Your task to perform on an android device: Set the phone to "Do not disturb". Image 0: 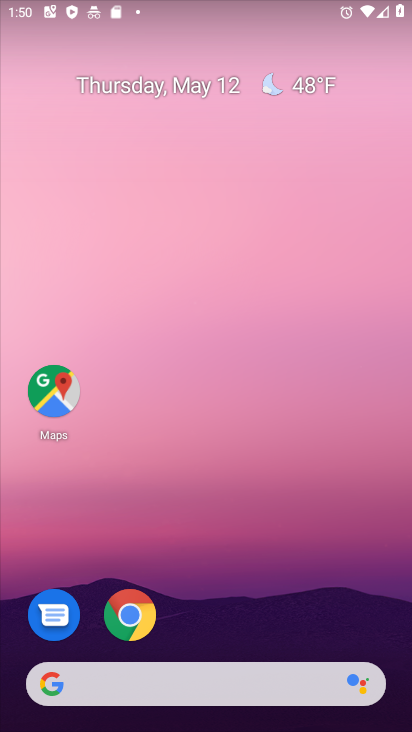
Step 0: drag from (239, 669) to (361, 7)
Your task to perform on an android device: Set the phone to "Do not disturb". Image 1: 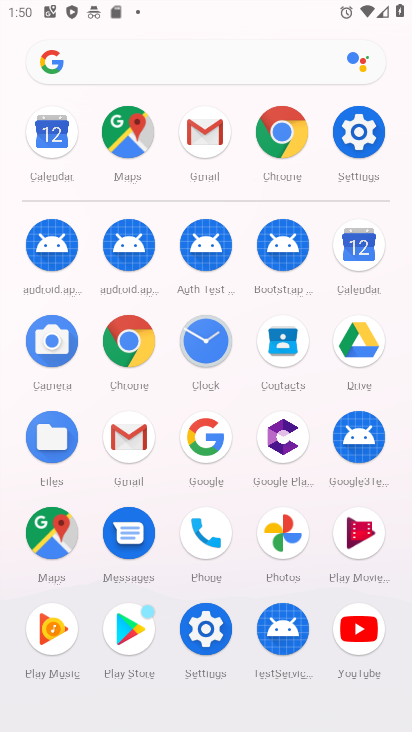
Step 1: click (356, 134)
Your task to perform on an android device: Set the phone to "Do not disturb". Image 2: 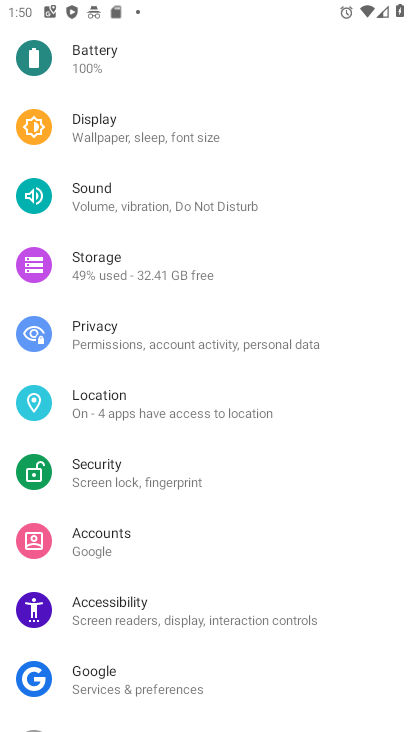
Step 2: drag from (261, 266) to (279, 727)
Your task to perform on an android device: Set the phone to "Do not disturb". Image 3: 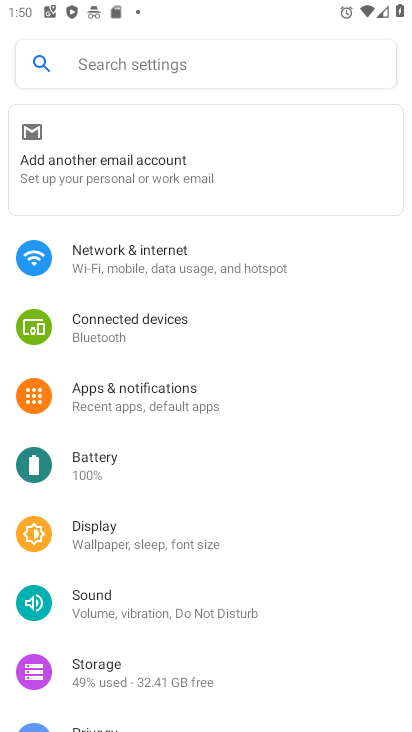
Step 3: drag from (231, 661) to (289, 121)
Your task to perform on an android device: Set the phone to "Do not disturb". Image 4: 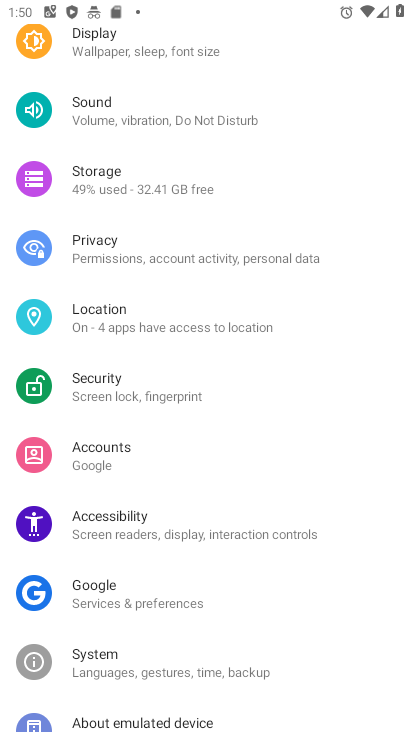
Step 4: drag from (200, 682) to (214, 451)
Your task to perform on an android device: Set the phone to "Do not disturb". Image 5: 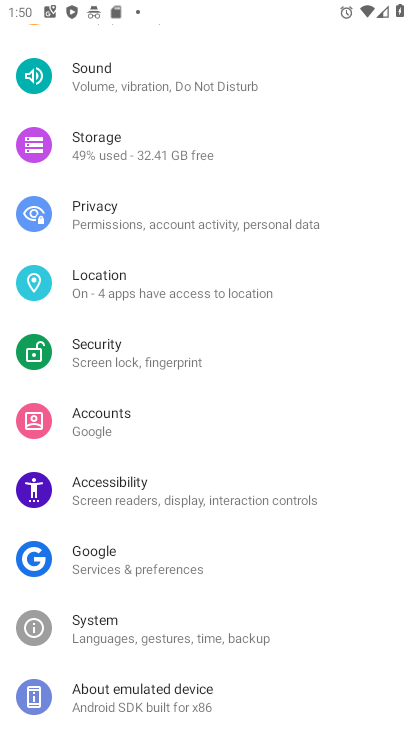
Step 5: click (160, 80)
Your task to perform on an android device: Set the phone to "Do not disturb". Image 6: 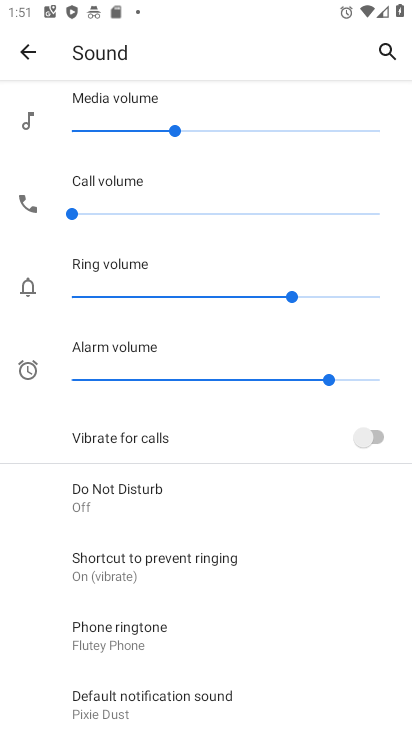
Step 6: click (194, 488)
Your task to perform on an android device: Set the phone to "Do not disturb". Image 7: 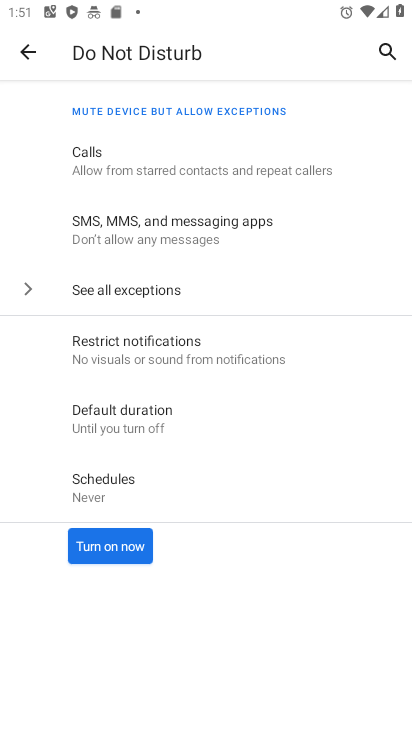
Step 7: click (134, 543)
Your task to perform on an android device: Set the phone to "Do not disturb". Image 8: 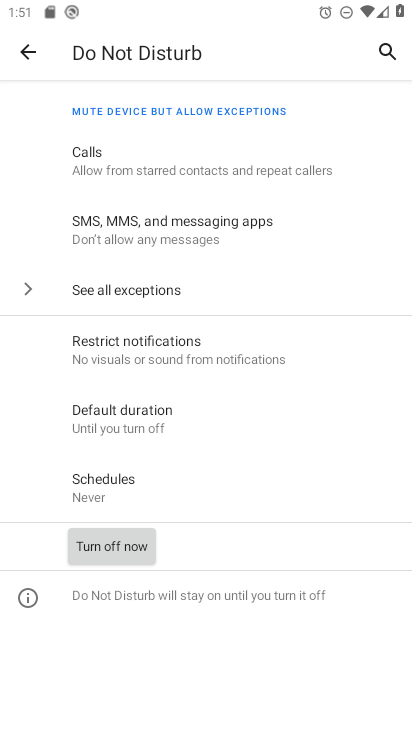
Step 8: task complete